Your task to perform on an android device: What's the weather going to be tomorrow? Image 0: 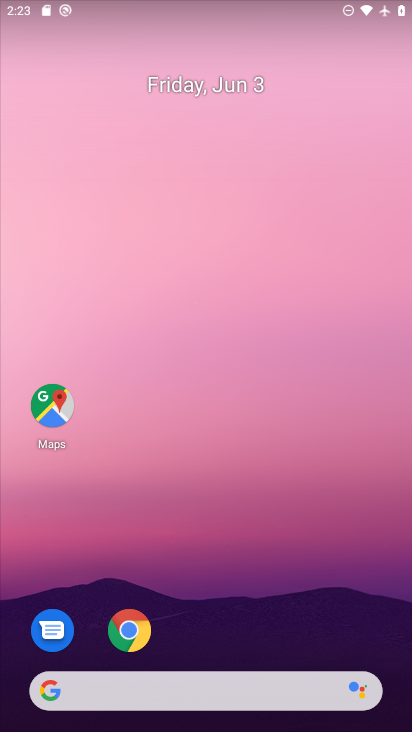
Step 0: drag from (230, 723) to (160, 183)
Your task to perform on an android device: What's the weather going to be tomorrow? Image 1: 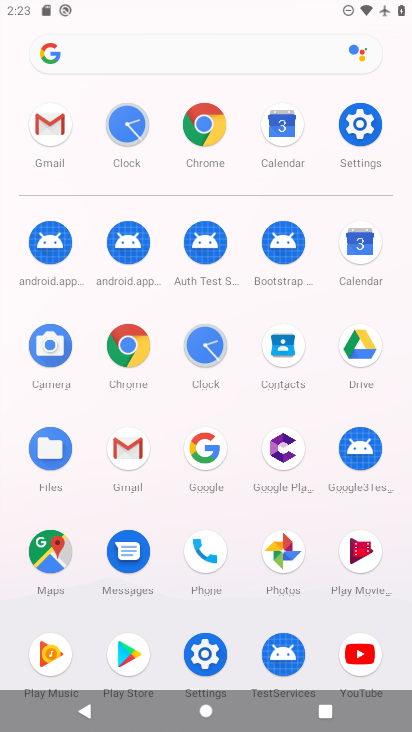
Step 1: click (211, 451)
Your task to perform on an android device: What's the weather going to be tomorrow? Image 2: 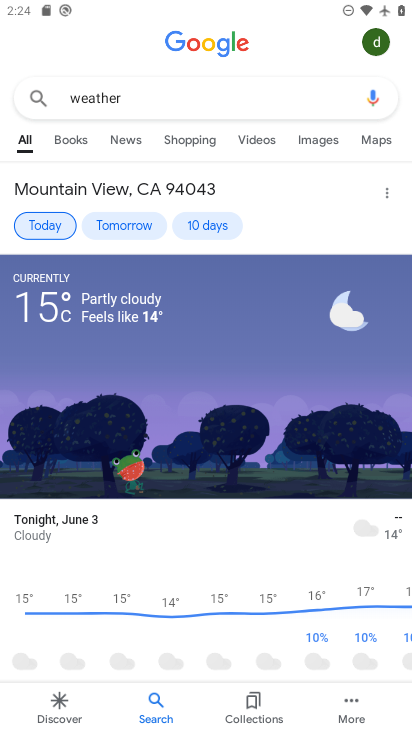
Step 2: click (123, 217)
Your task to perform on an android device: What's the weather going to be tomorrow? Image 3: 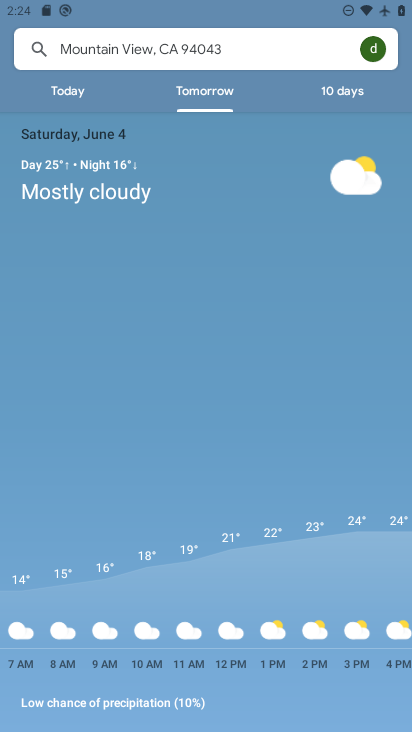
Step 3: task complete